Your task to perform on an android device: turn on translation in the chrome app Image 0: 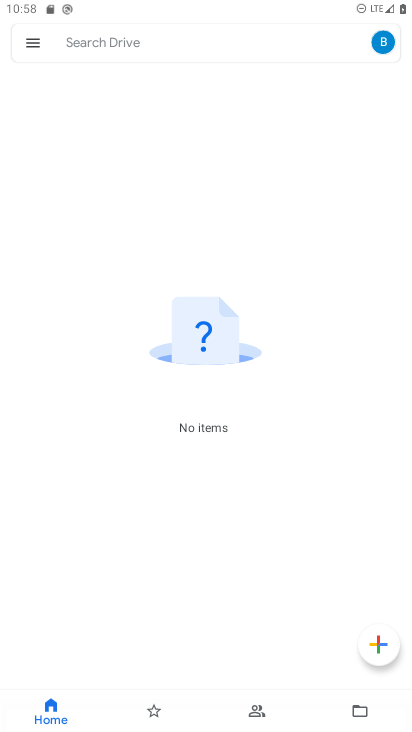
Step 0: press home button
Your task to perform on an android device: turn on translation in the chrome app Image 1: 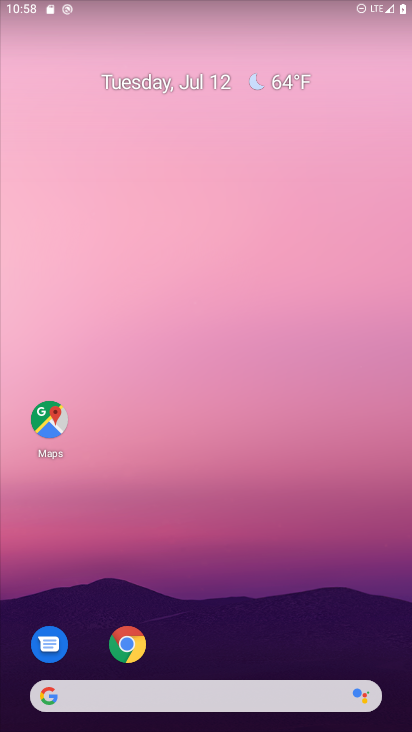
Step 1: click (124, 648)
Your task to perform on an android device: turn on translation in the chrome app Image 2: 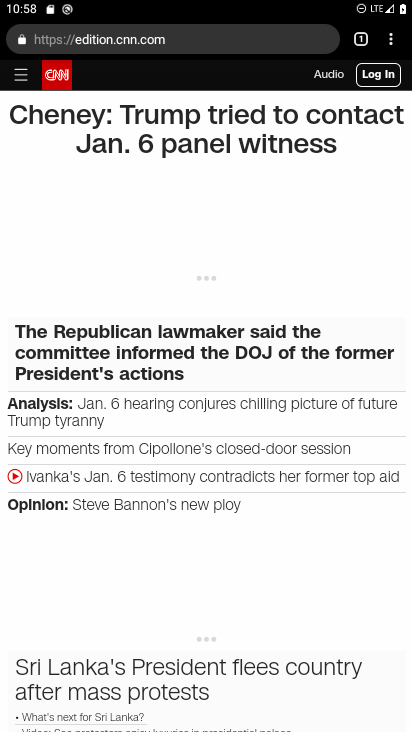
Step 2: click (387, 38)
Your task to perform on an android device: turn on translation in the chrome app Image 3: 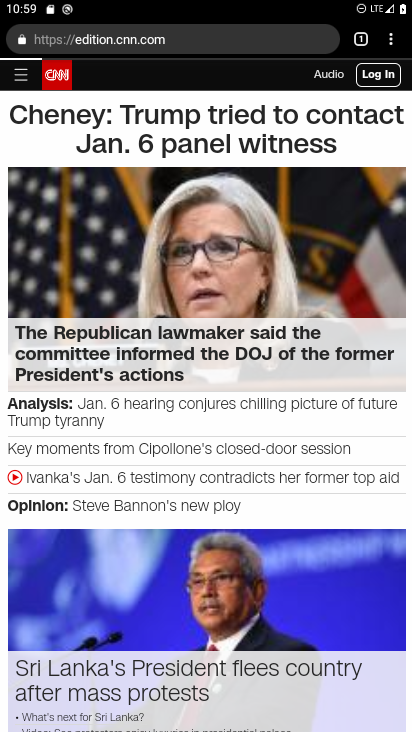
Step 3: click (387, 48)
Your task to perform on an android device: turn on translation in the chrome app Image 4: 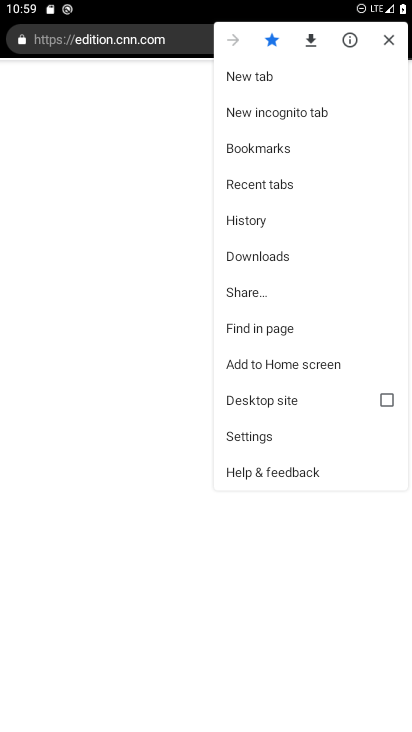
Step 4: click (244, 430)
Your task to perform on an android device: turn on translation in the chrome app Image 5: 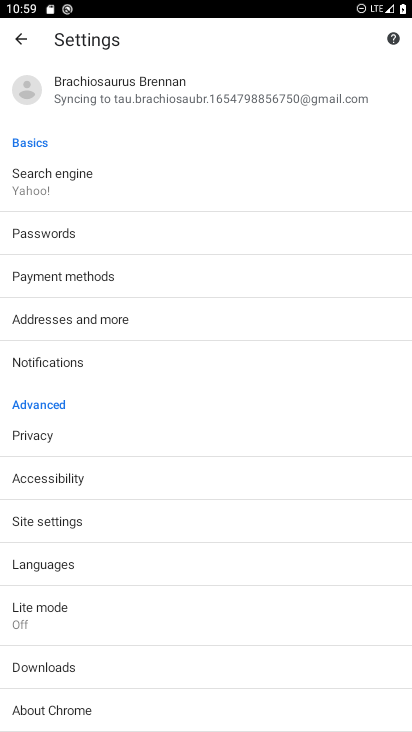
Step 5: click (91, 572)
Your task to perform on an android device: turn on translation in the chrome app Image 6: 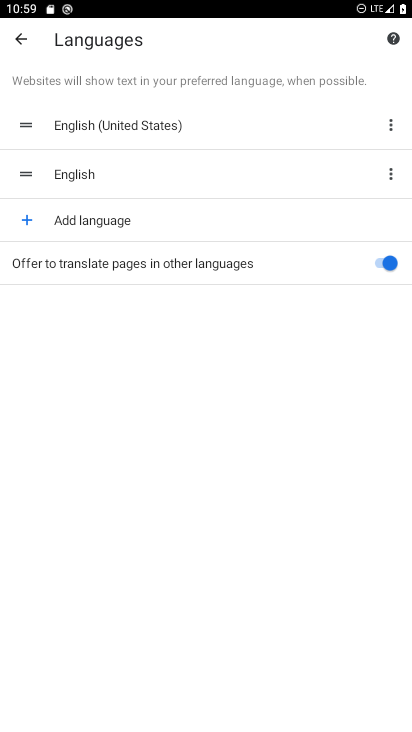
Step 6: click (387, 256)
Your task to perform on an android device: turn on translation in the chrome app Image 7: 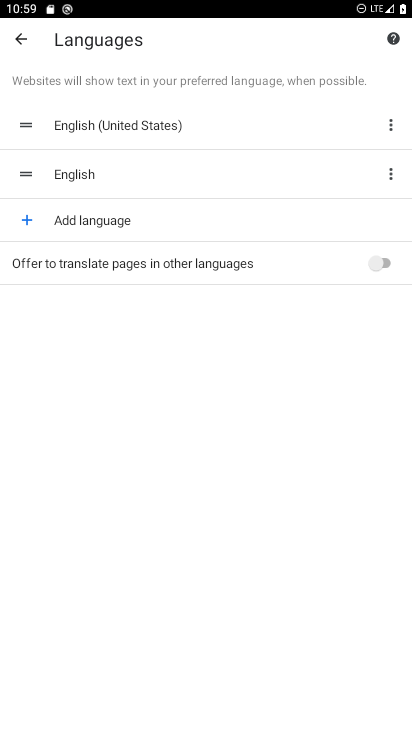
Step 7: task complete